Your task to perform on an android device: turn off picture-in-picture Image 0: 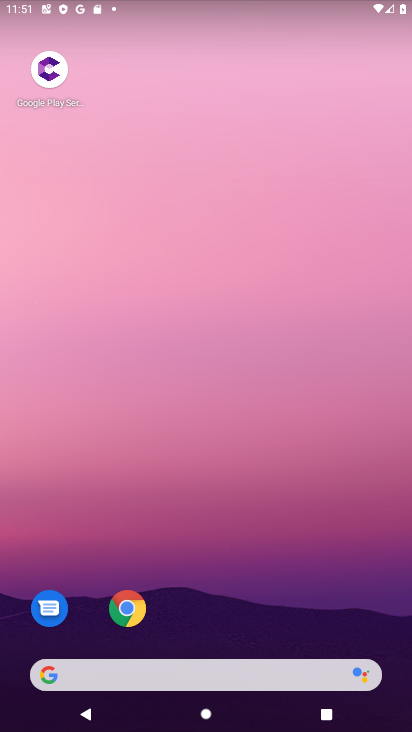
Step 0: click (127, 610)
Your task to perform on an android device: turn off picture-in-picture Image 1: 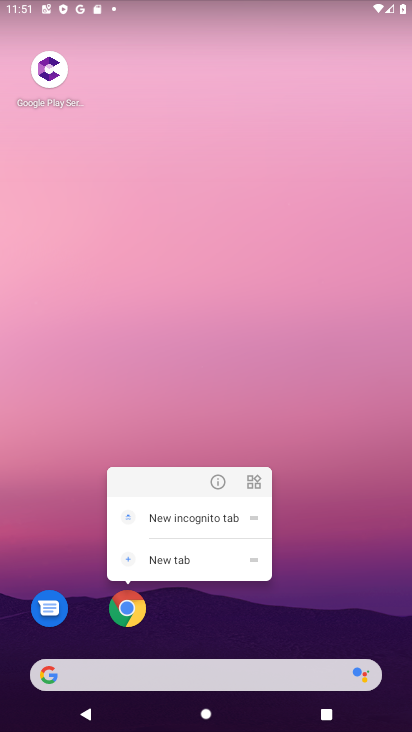
Step 1: click (214, 488)
Your task to perform on an android device: turn off picture-in-picture Image 2: 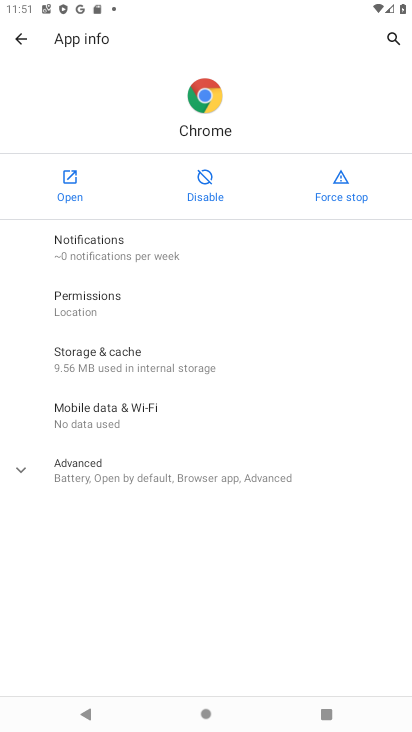
Step 2: click (136, 469)
Your task to perform on an android device: turn off picture-in-picture Image 3: 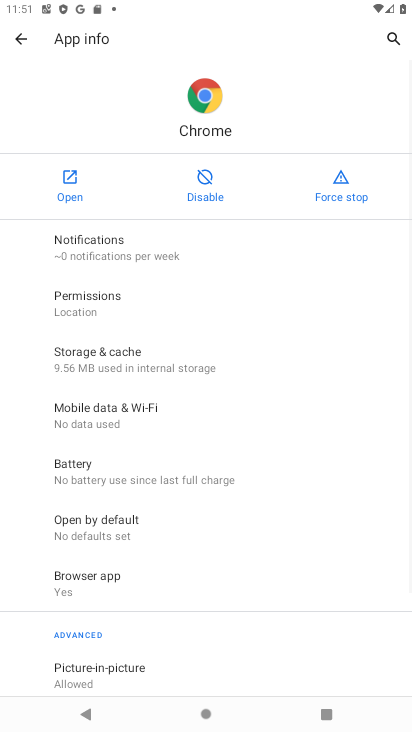
Step 3: click (129, 668)
Your task to perform on an android device: turn off picture-in-picture Image 4: 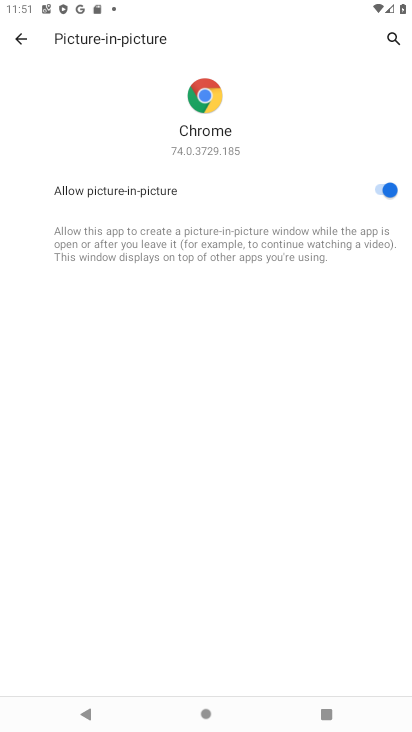
Step 4: click (391, 193)
Your task to perform on an android device: turn off picture-in-picture Image 5: 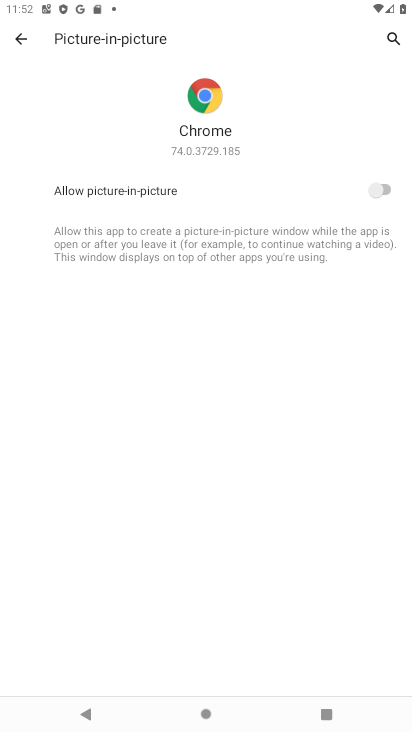
Step 5: task complete